Your task to perform on an android device: Toggle the flashlight Image 0: 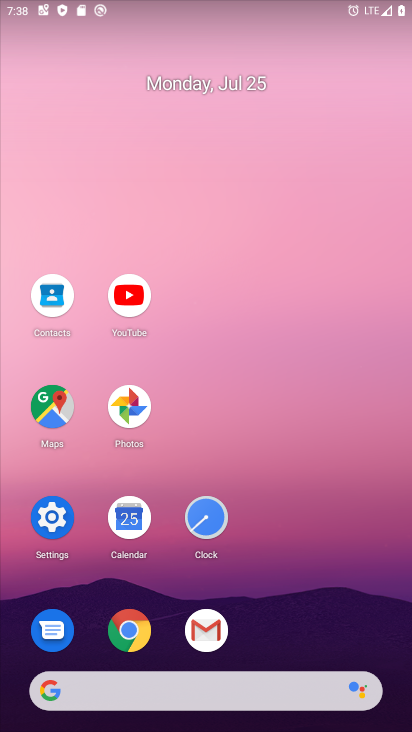
Step 0: click (46, 513)
Your task to perform on an android device: Toggle the flashlight Image 1: 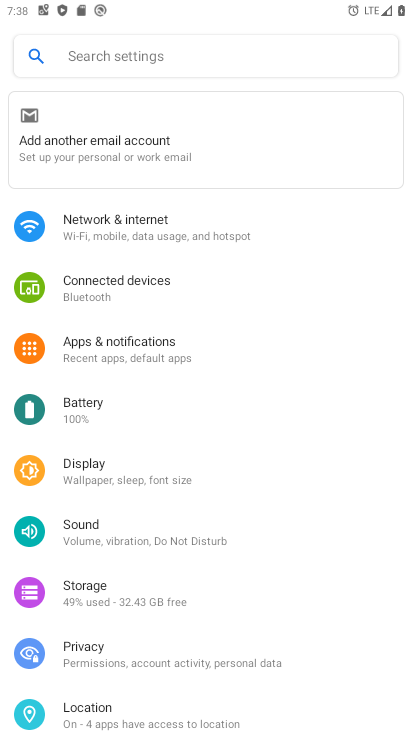
Step 1: click (88, 472)
Your task to perform on an android device: Toggle the flashlight Image 2: 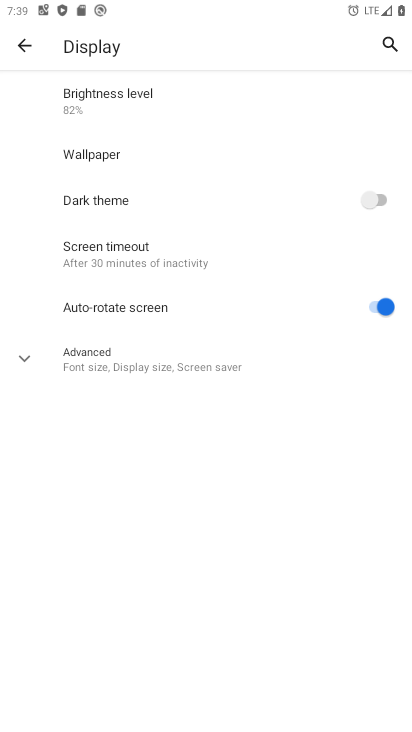
Step 2: task complete